Your task to perform on an android device: turn on data saver in the chrome app Image 0: 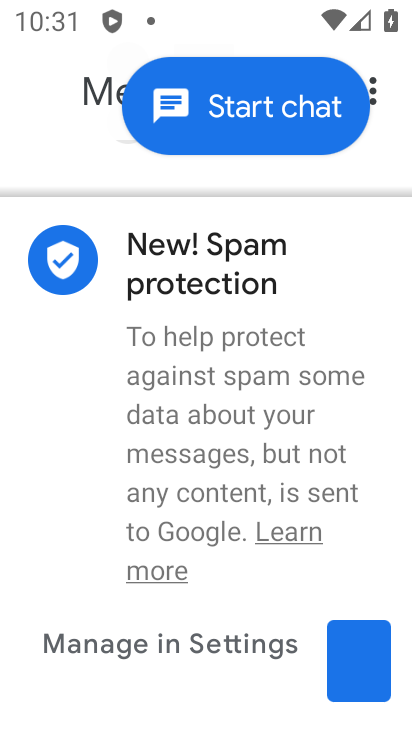
Step 0: press home button
Your task to perform on an android device: turn on data saver in the chrome app Image 1: 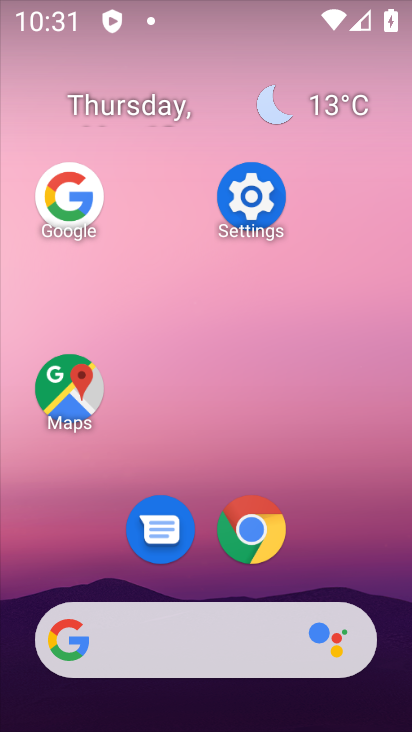
Step 1: click (278, 548)
Your task to perform on an android device: turn on data saver in the chrome app Image 2: 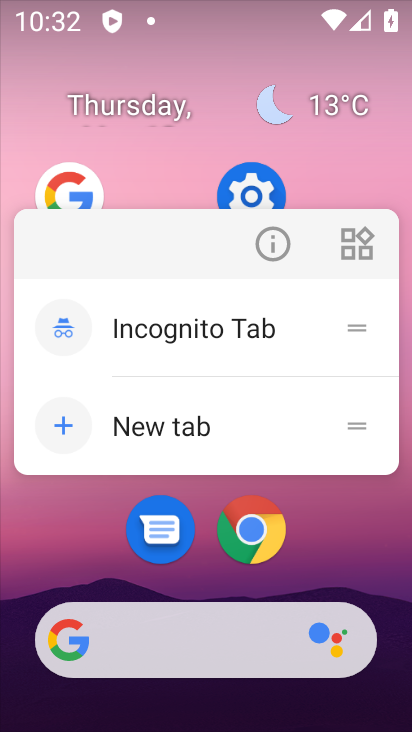
Step 2: click (278, 548)
Your task to perform on an android device: turn on data saver in the chrome app Image 3: 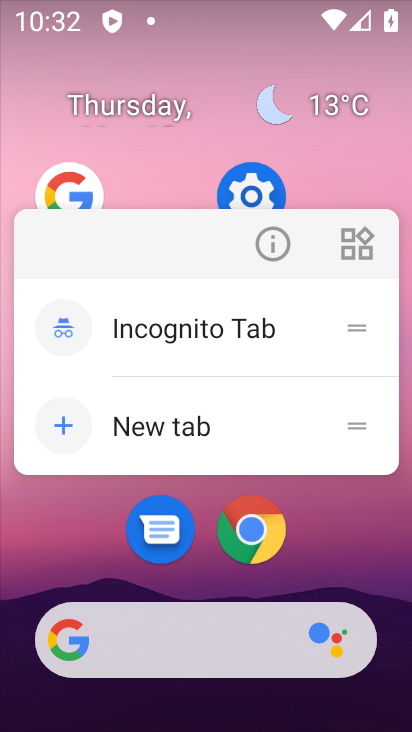
Step 3: click (238, 543)
Your task to perform on an android device: turn on data saver in the chrome app Image 4: 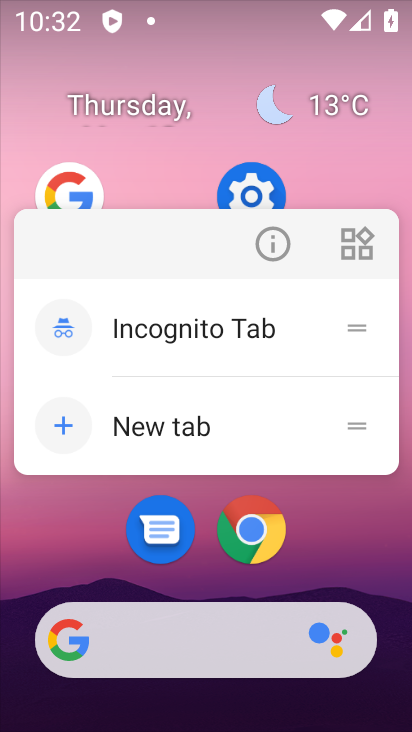
Step 4: click (238, 544)
Your task to perform on an android device: turn on data saver in the chrome app Image 5: 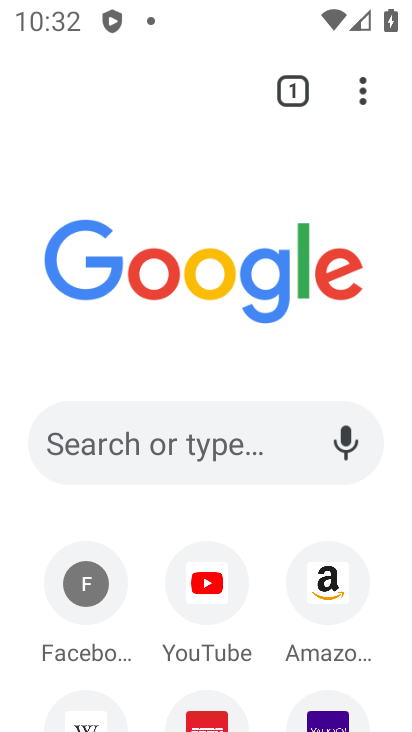
Step 5: click (384, 73)
Your task to perform on an android device: turn on data saver in the chrome app Image 6: 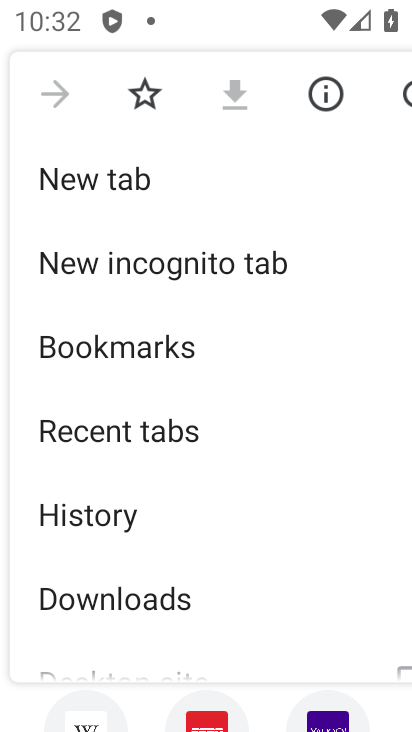
Step 6: drag from (88, 511) to (199, 102)
Your task to perform on an android device: turn on data saver in the chrome app Image 7: 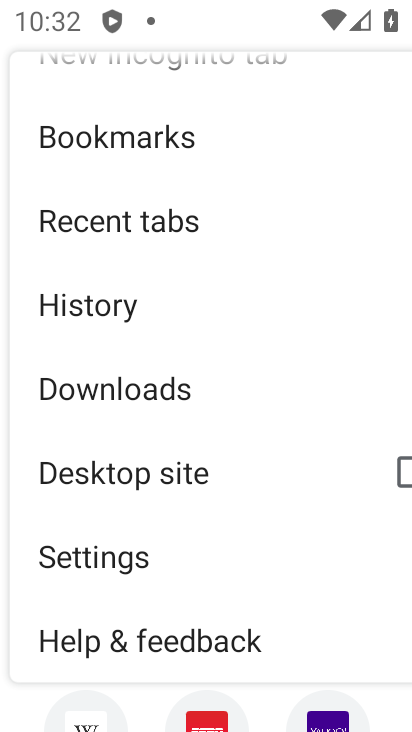
Step 7: click (58, 558)
Your task to perform on an android device: turn on data saver in the chrome app Image 8: 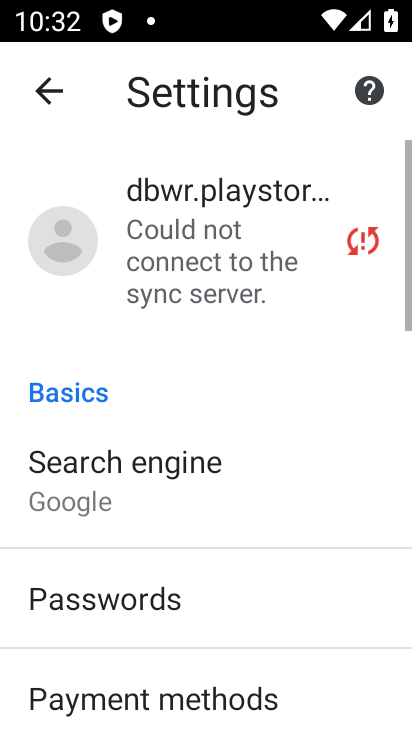
Step 8: drag from (58, 558) to (263, 151)
Your task to perform on an android device: turn on data saver in the chrome app Image 9: 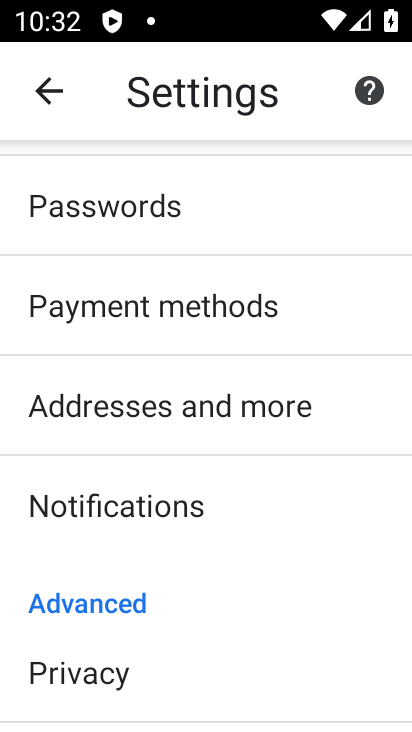
Step 9: drag from (147, 604) to (298, 209)
Your task to perform on an android device: turn on data saver in the chrome app Image 10: 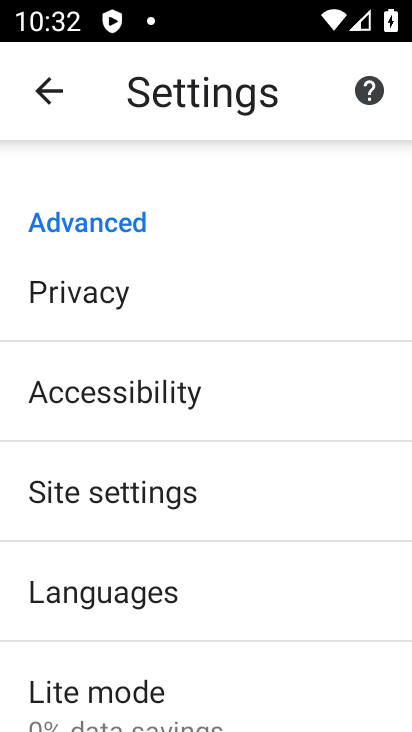
Step 10: click (97, 673)
Your task to perform on an android device: turn on data saver in the chrome app Image 11: 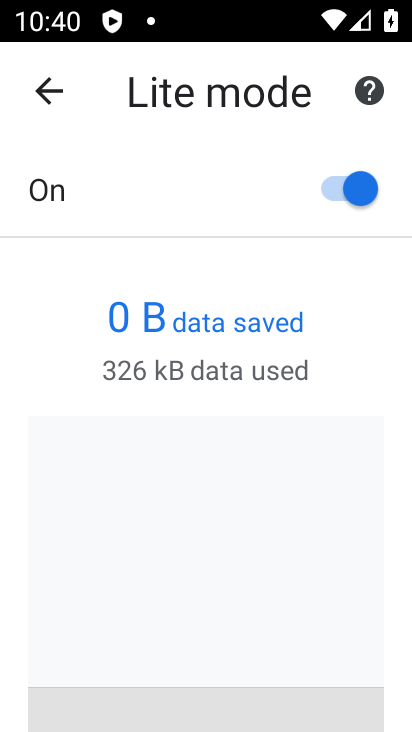
Step 11: task complete